Your task to perform on an android device: Open the calendar app, open the side menu, and click the "Day" option Image 0: 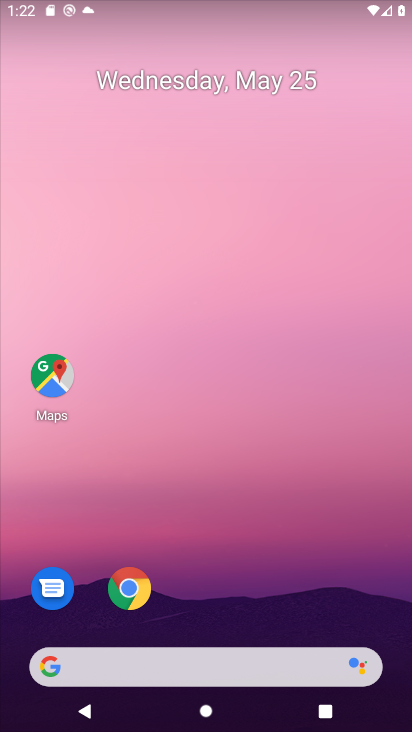
Step 0: drag from (288, 370) to (308, 10)
Your task to perform on an android device: Open the calendar app, open the side menu, and click the "Day" option Image 1: 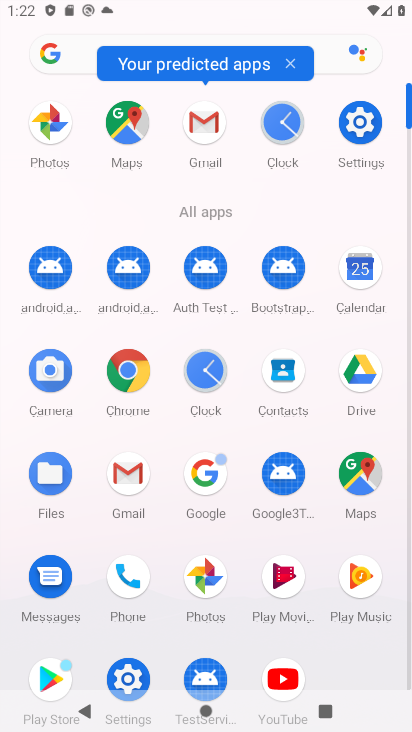
Step 1: click (358, 265)
Your task to perform on an android device: Open the calendar app, open the side menu, and click the "Day" option Image 2: 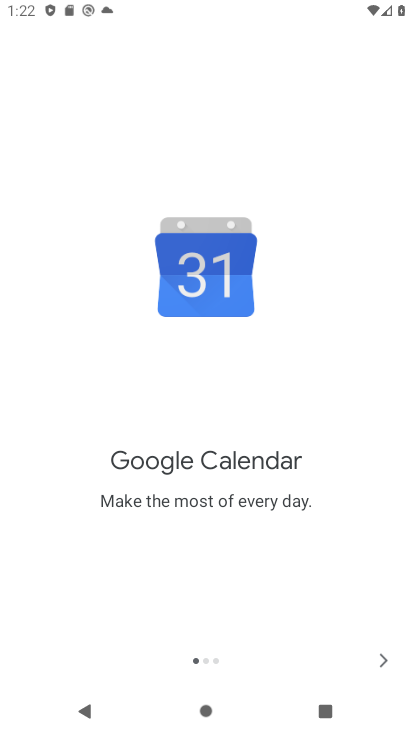
Step 2: click (378, 655)
Your task to perform on an android device: Open the calendar app, open the side menu, and click the "Day" option Image 3: 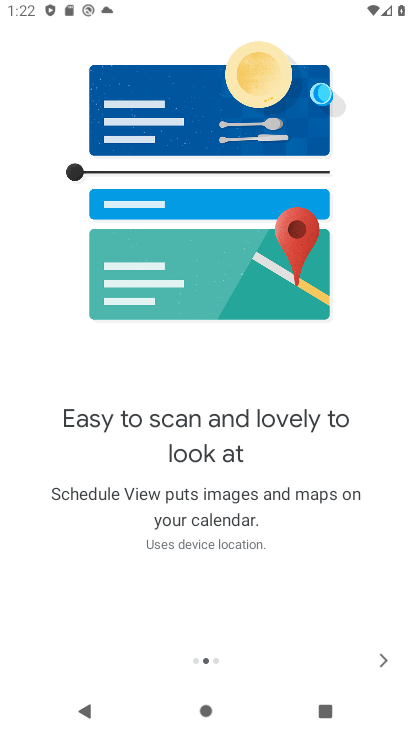
Step 3: click (382, 661)
Your task to perform on an android device: Open the calendar app, open the side menu, and click the "Day" option Image 4: 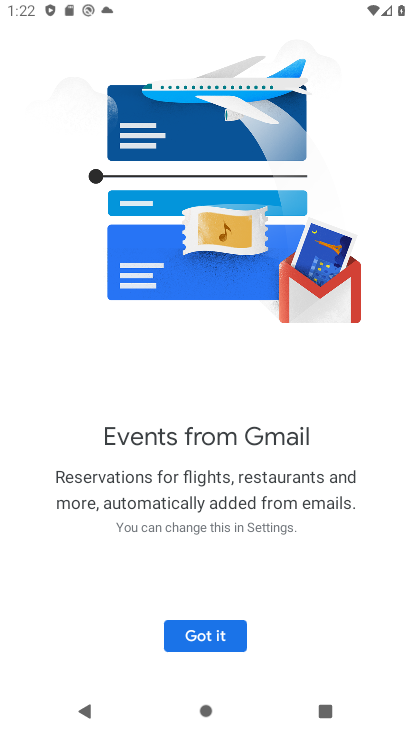
Step 4: click (181, 630)
Your task to perform on an android device: Open the calendar app, open the side menu, and click the "Day" option Image 5: 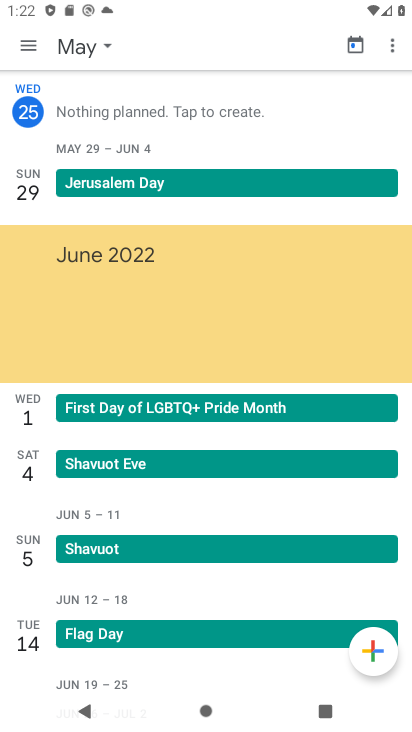
Step 5: click (32, 48)
Your task to perform on an android device: Open the calendar app, open the side menu, and click the "Day" option Image 6: 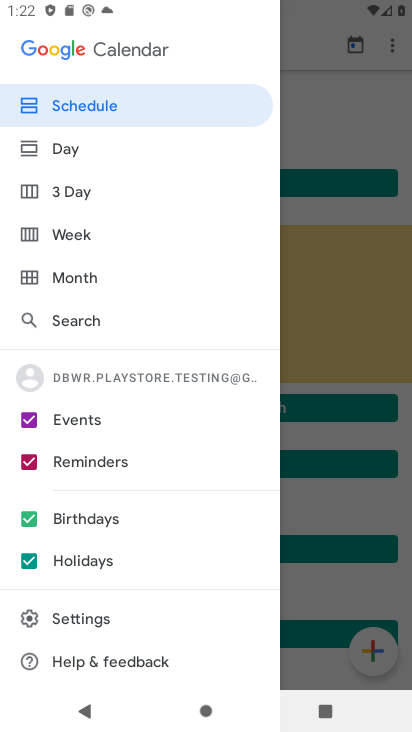
Step 6: click (60, 154)
Your task to perform on an android device: Open the calendar app, open the side menu, and click the "Day" option Image 7: 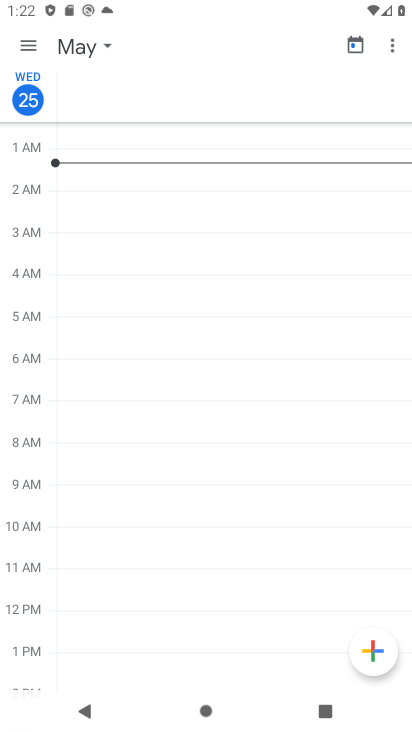
Step 7: task complete